Your task to perform on an android device: Go to location settings Image 0: 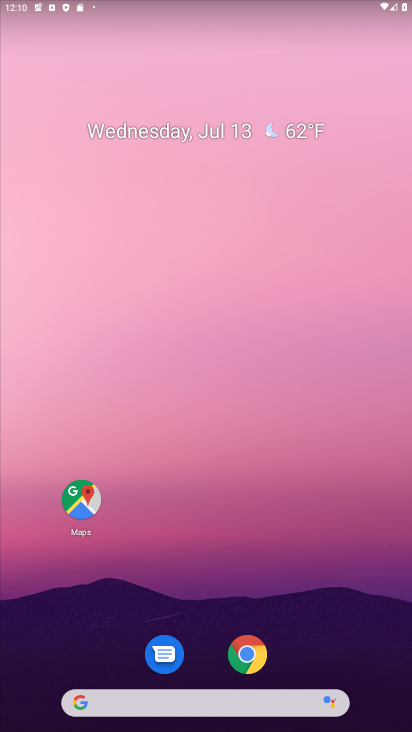
Step 0: drag from (250, 703) to (251, 344)
Your task to perform on an android device: Go to location settings Image 1: 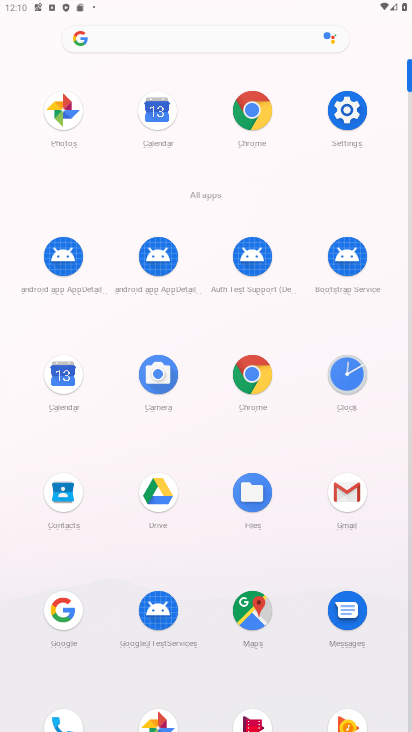
Step 1: click (337, 121)
Your task to perform on an android device: Go to location settings Image 2: 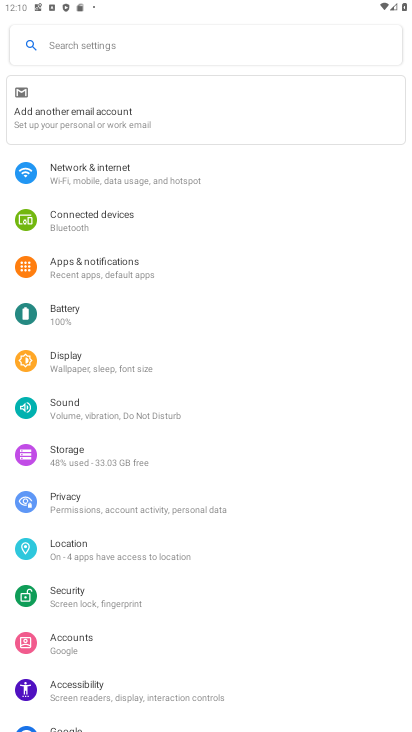
Step 2: click (94, 551)
Your task to perform on an android device: Go to location settings Image 3: 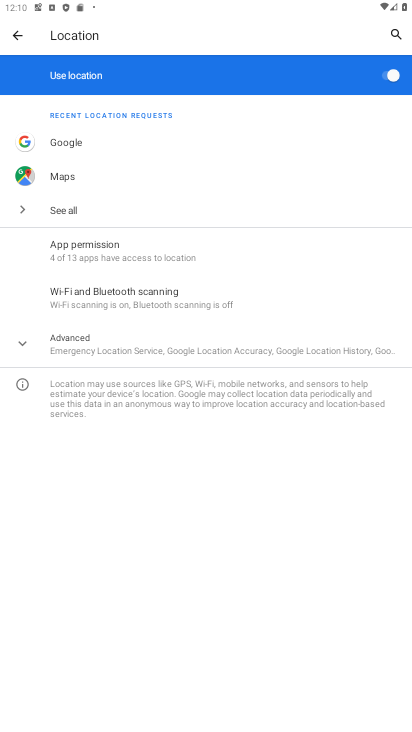
Step 3: task complete